Your task to perform on an android device: turn pop-ups on in chrome Image 0: 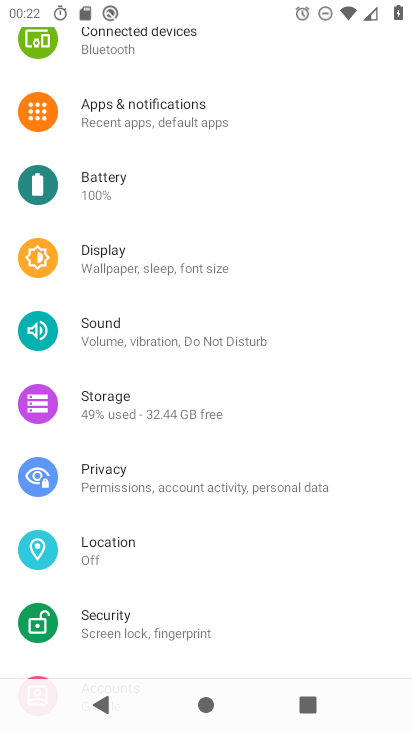
Step 0: press home button
Your task to perform on an android device: turn pop-ups on in chrome Image 1: 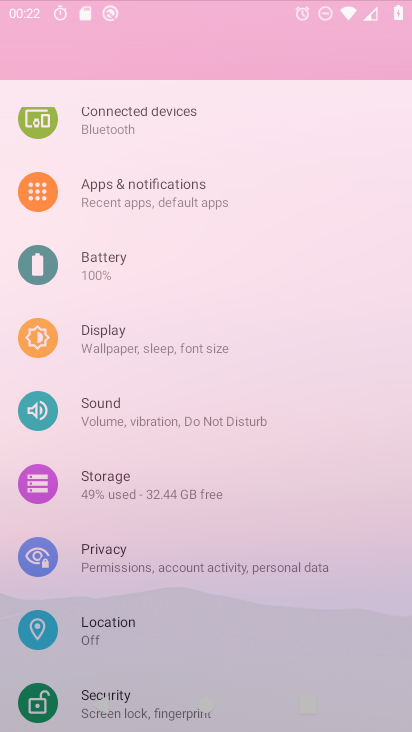
Step 1: drag from (268, 605) to (319, 167)
Your task to perform on an android device: turn pop-ups on in chrome Image 2: 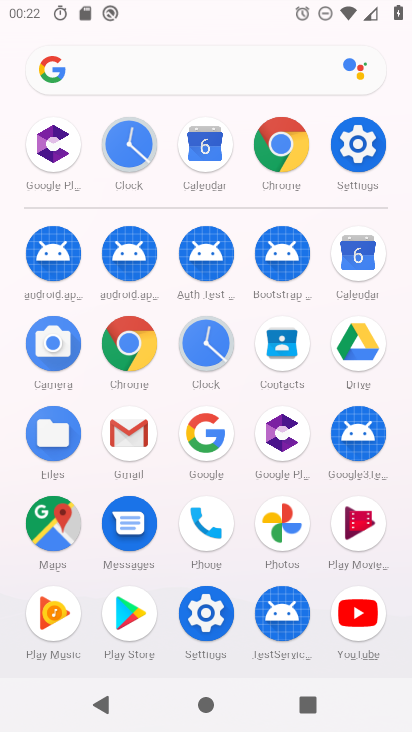
Step 2: click (125, 345)
Your task to perform on an android device: turn pop-ups on in chrome Image 3: 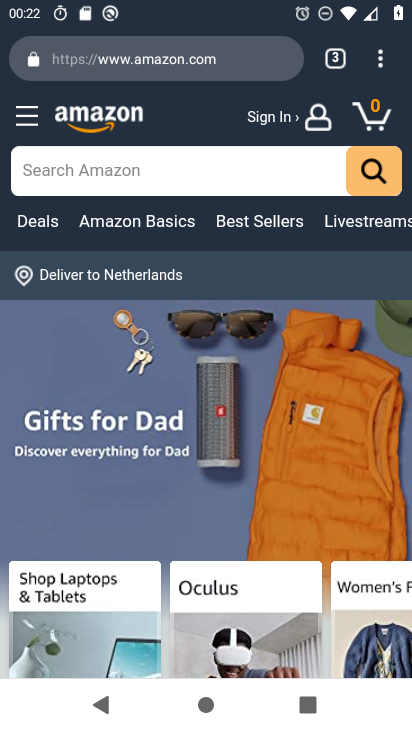
Step 3: drag from (342, 322) to (357, 655)
Your task to perform on an android device: turn pop-ups on in chrome Image 4: 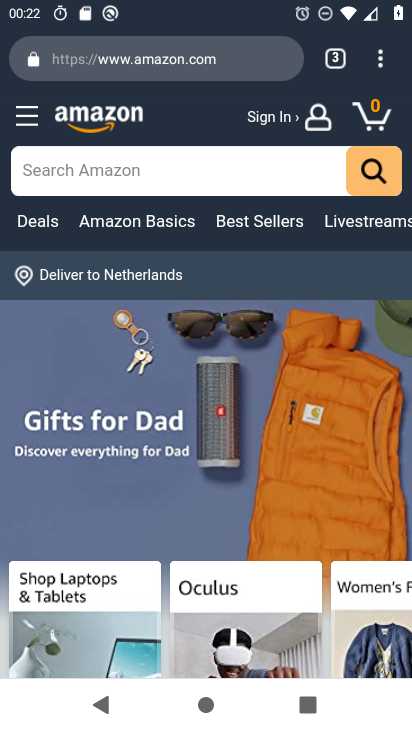
Step 4: drag from (388, 56) to (191, 565)
Your task to perform on an android device: turn pop-ups on in chrome Image 5: 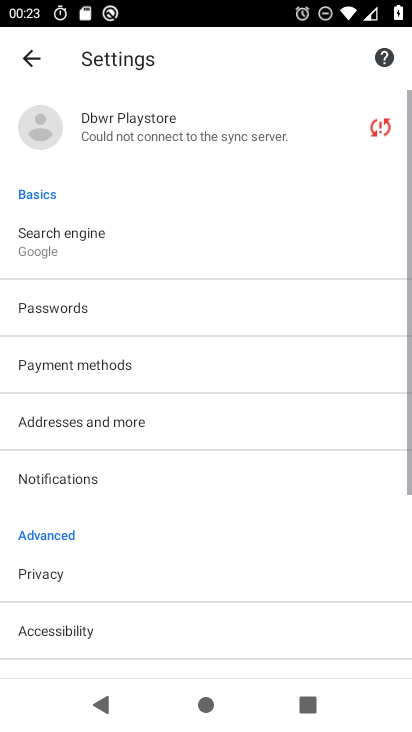
Step 5: drag from (221, 524) to (265, 168)
Your task to perform on an android device: turn pop-ups on in chrome Image 6: 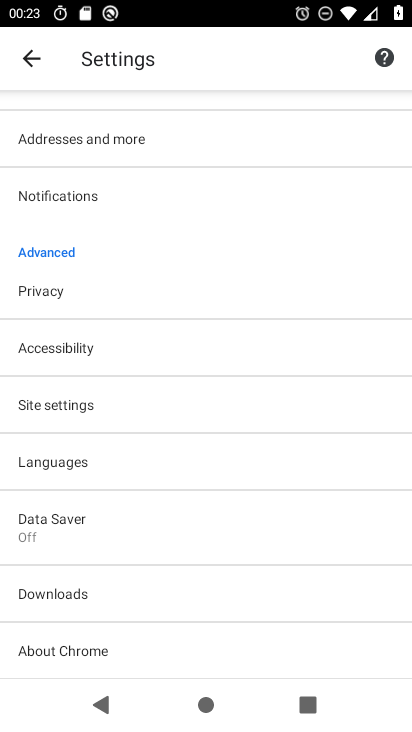
Step 6: drag from (184, 577) to (193, 281)
Your task to perform on an android device: turn pop-ups on in chrome Image 7: 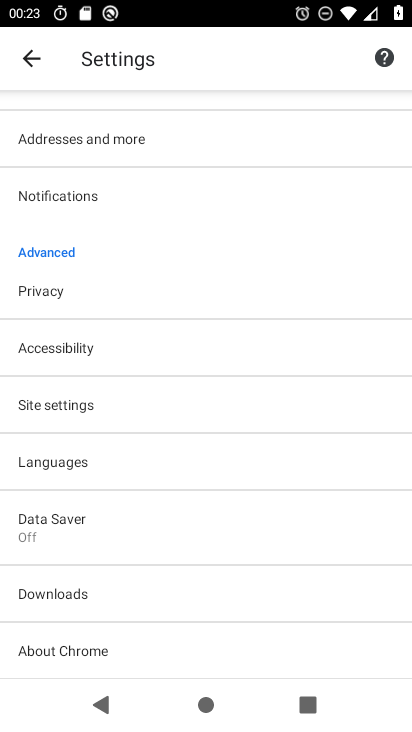
Step 7: click (101, 407)
Your task to perform on an android device: turn pop-ups on in chrome Image 8: 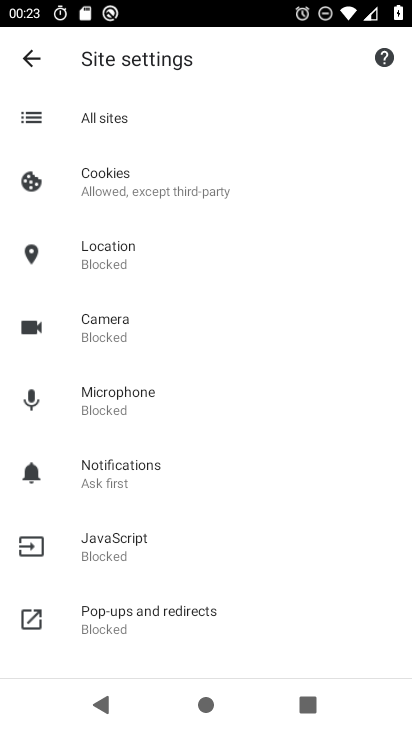
Step 8: drag from (253, 545) to (332, 139)
Your task to perform on an android device: turn pop-ups on in chrome Image 9: 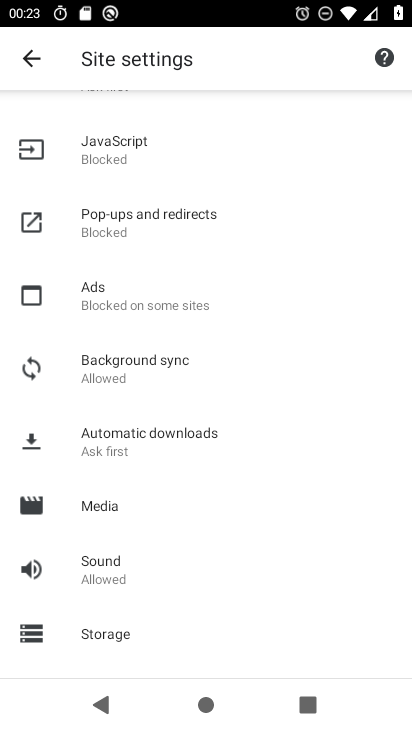
Step 9: click (178, 231)
Your task to perform on an android device: turn pop-ups on in chrome Image 10: 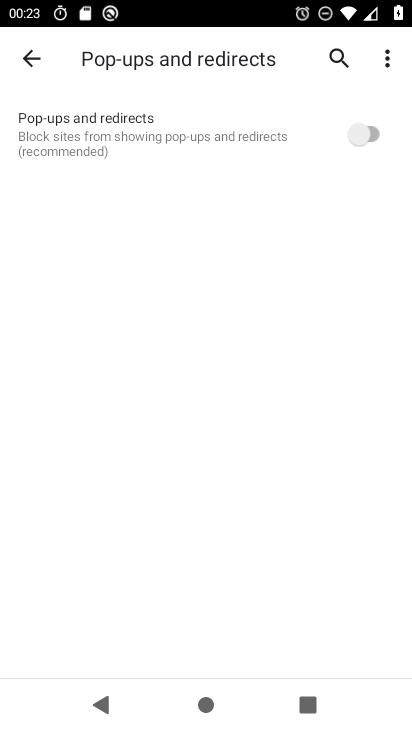
Step 10: drag from (180, 573) to (270, 158)
Your task to perform on an android device: turn pop-ups on in chrome Image 11: 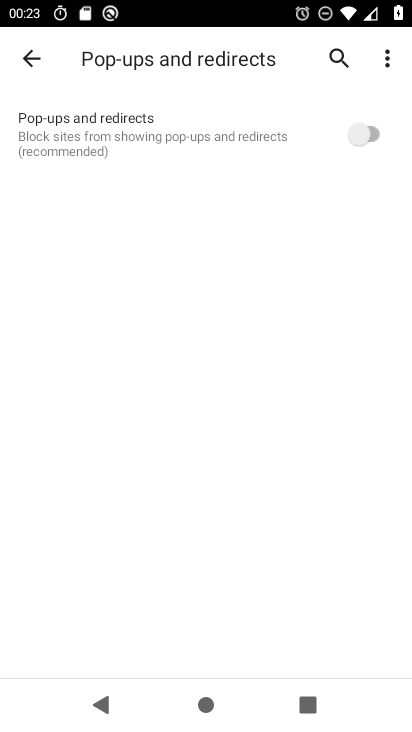
Step 11: click (251, 144)
Your task to perform on an android device: turn pop-ups on in chrome Image 12: 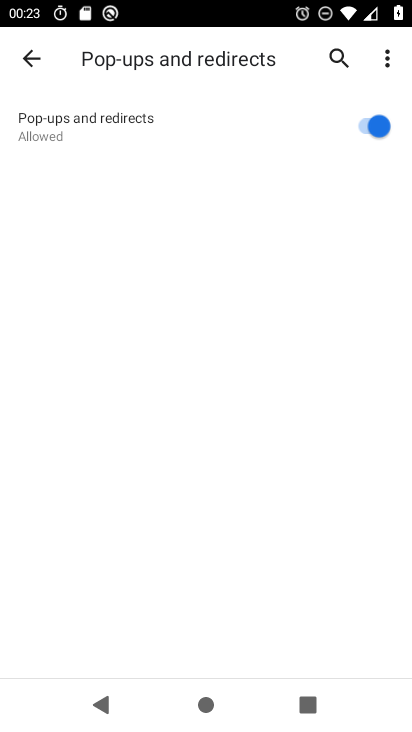
Step 12: task complete